Your task to perform on an android device: Open network settings Image 0: 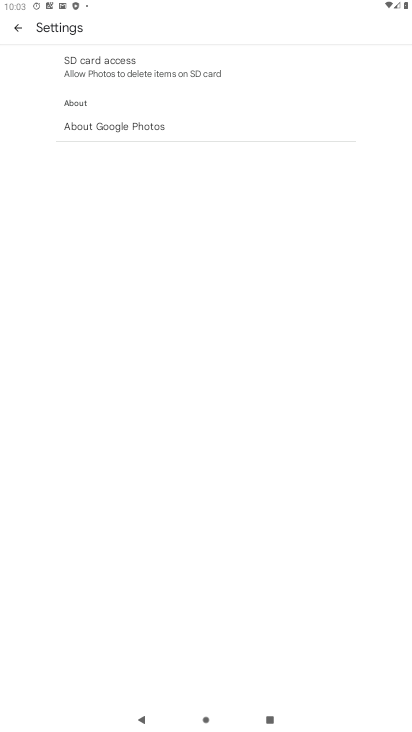
Step 0: press home button
Your task to perform on an android device: Open network settings Image 1: 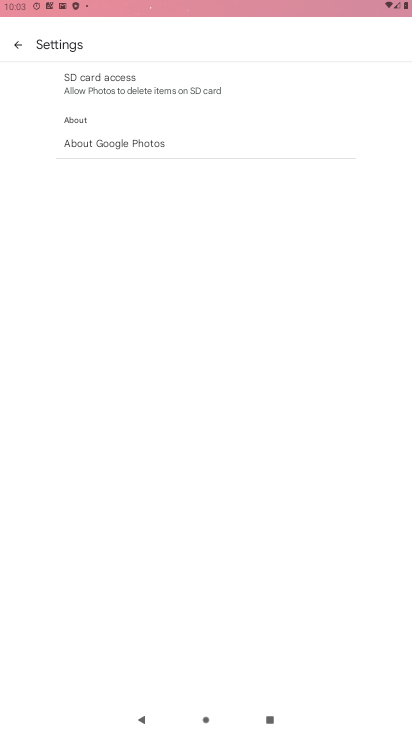
Step 1: press home button
Your task to perform on an android device: Open network settings Image 2: 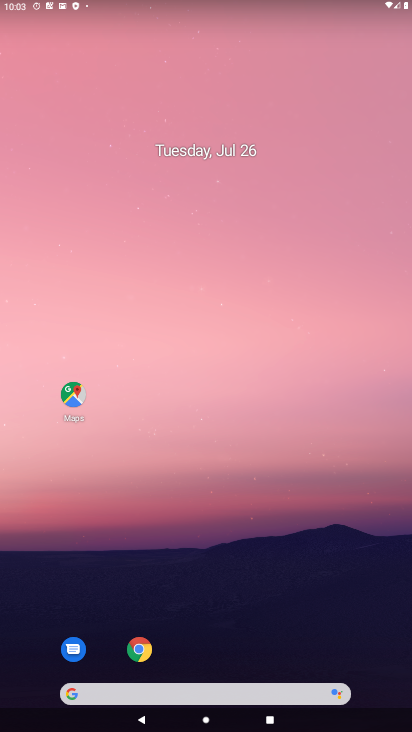
Step 2: drag from (212, 649) to (200, 74)
Your task to perform on an android device: Open network settings Image 3: 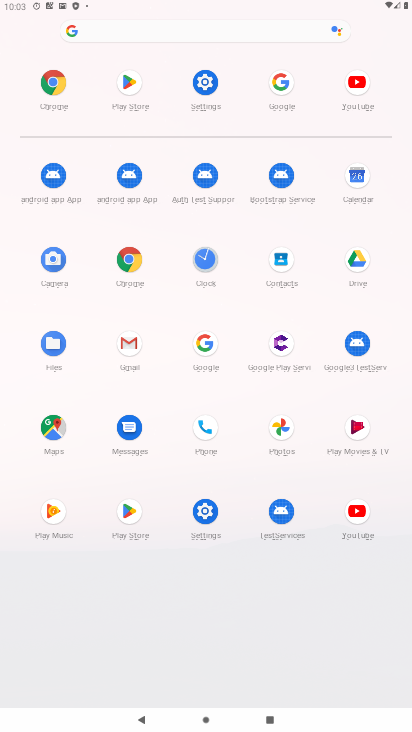
Step 3: click (192, 509)
Your task to perform on an android device: Open network settings Image 4: 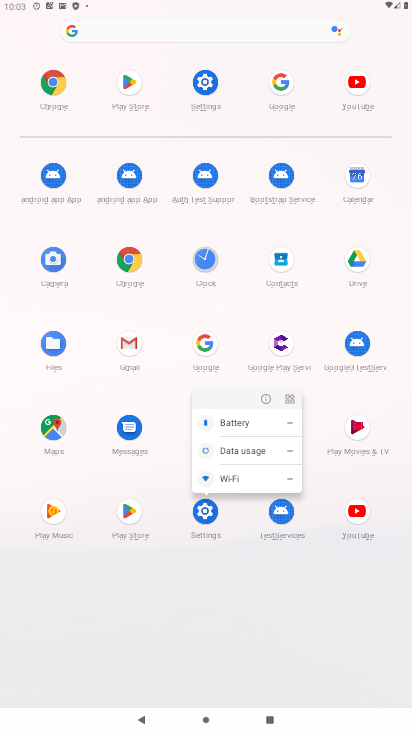
Step 4: click (261, 398)
Your task to perform on an android device: Open network settings Image 5: 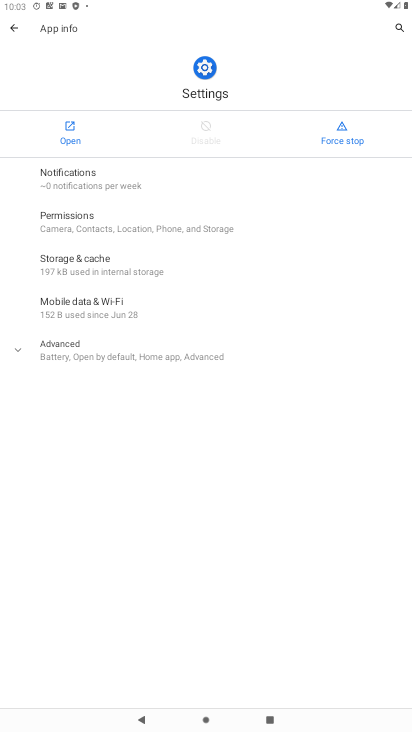
Step 5: click (67, 136)
Your task to perform on an android device: Open network settings Image 6: 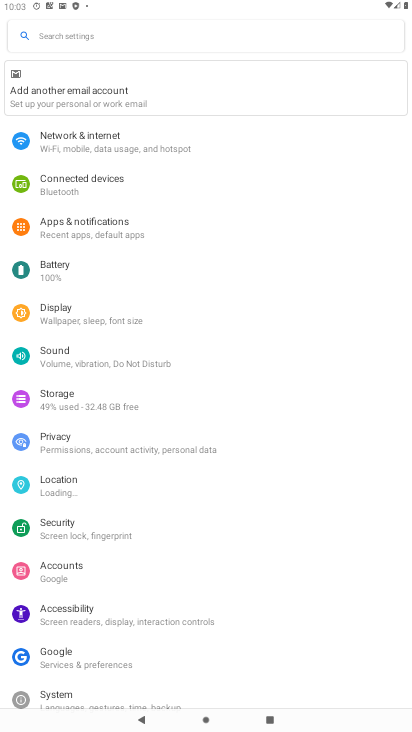
Step 6: click (114, 144)
Your task to perform on an android device: Open network settings Image 7: 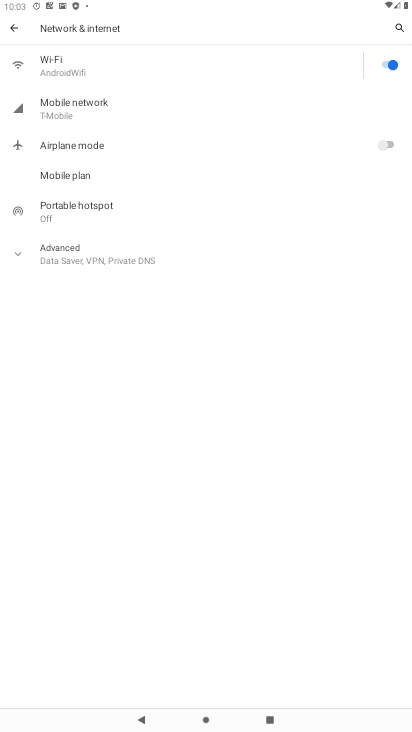
Step 7: task complete